Your task to perform on an android device: allow cookies in the chrome app Image 0: 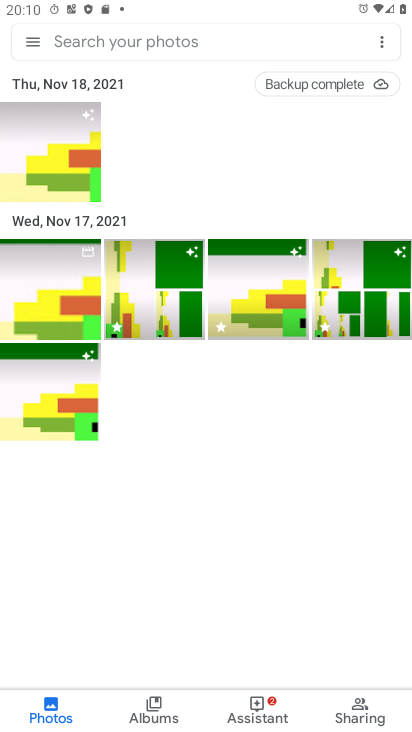
Step 0: press home button
Your task to perform on an android device: allow cookies in the chrome app Image 1: 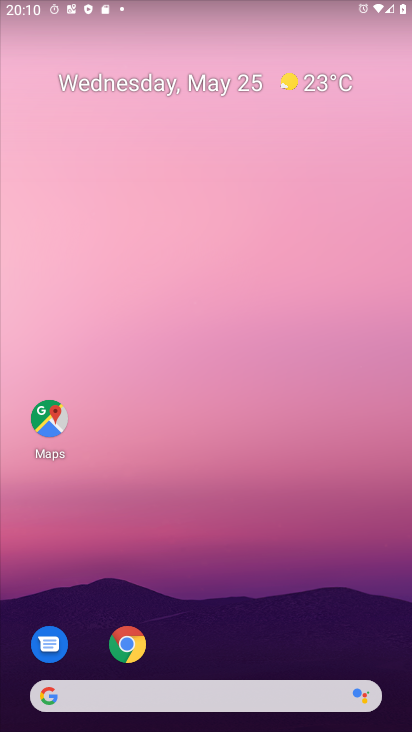
Step 1: drag from (225, 723) to (271, 206)
Your task to perform on an android device: allow cookies in the chrome app Image 2: 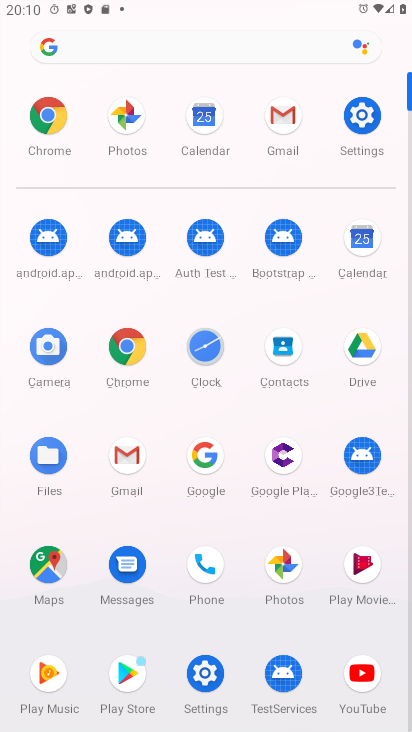
Step 2: click (43, 126)
Your task to perform on an android device: allow cookies in the chrome app Image 3: 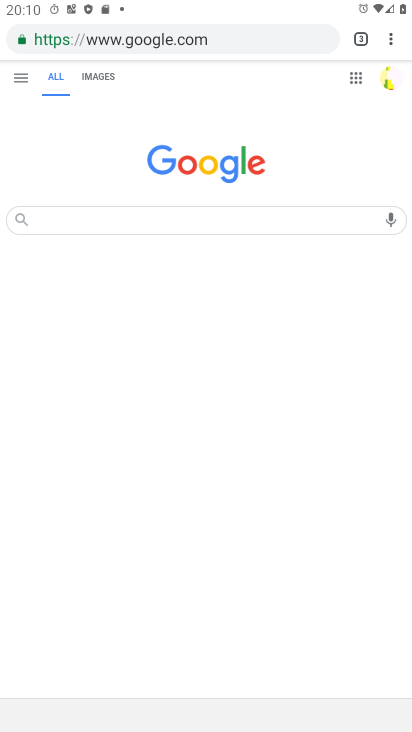
Step 3: click (392, 47)
Your task to perform on an android device: allow cookies in the chrome app Image 4: 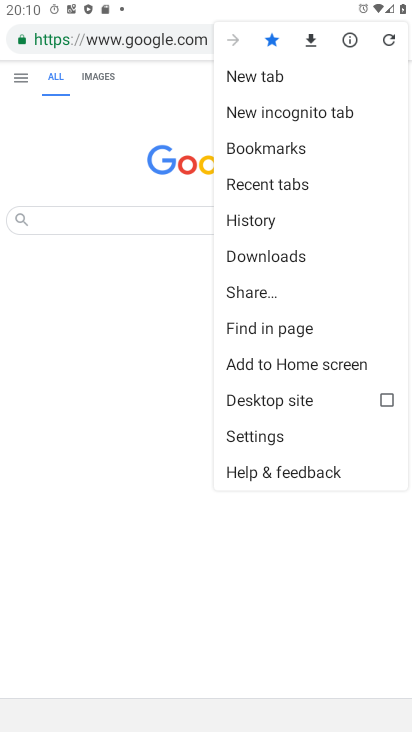
Step 4: click (241, 431)
Your task to perform on an android device: allow cookies in the chrome app Image 5: 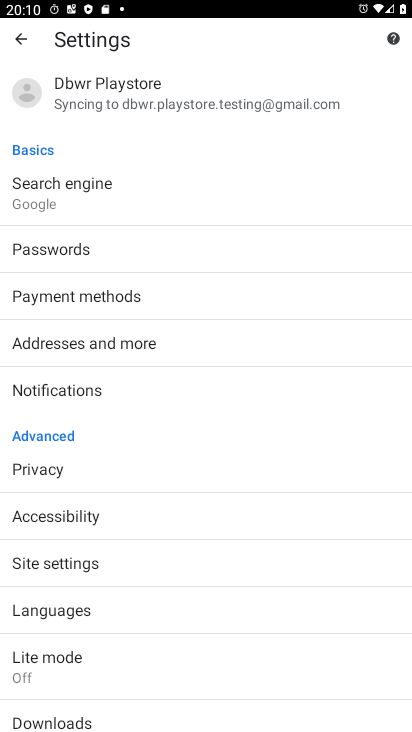
Step 5: click (82, 558)
Your task to perform on an android device: allow cookies in the chrome app Image 6: 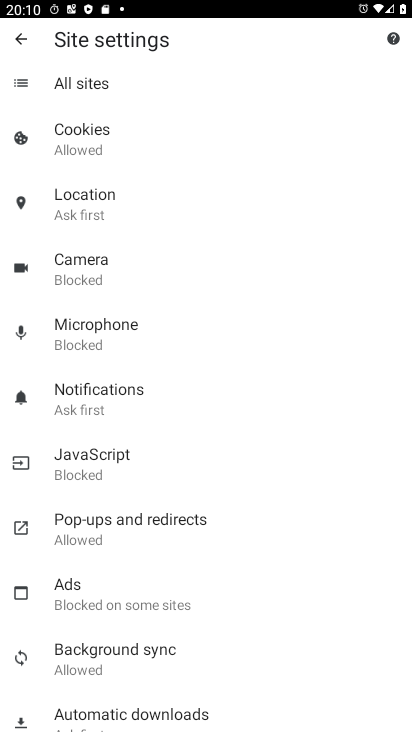
Step 6: click (126, 146)
Your task to perform on an android device: allow cookies in the chrome app Image 7: 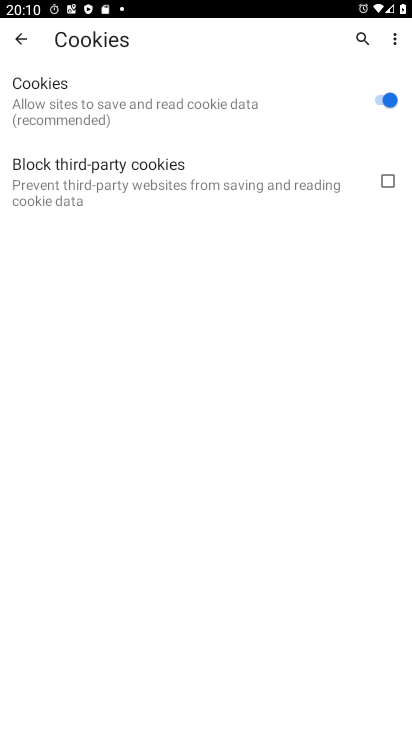
Step 7: click (385, 94)
Your task to perform on an android device: allow cookies in the chrome app Image 8: 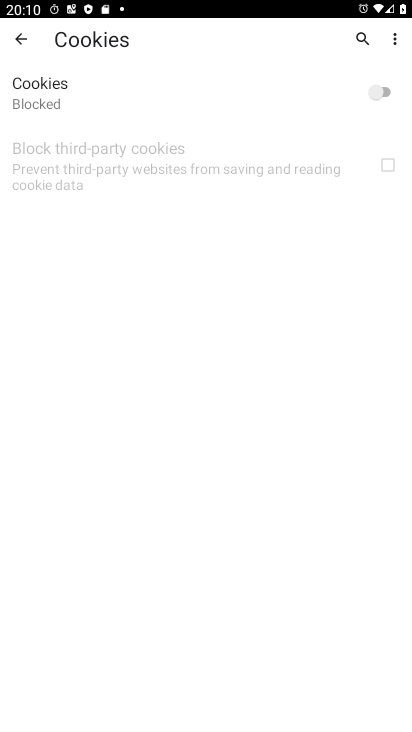
Step 8: click (385, 94)
Your task to perform on an android device: allow cookies in the chrome app Image 9: 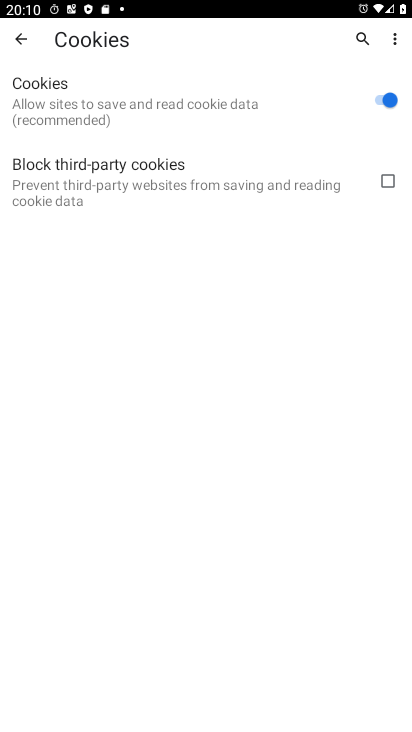
Step 9: task complete